Your task to perform on an android device: turn on location history Image 0: 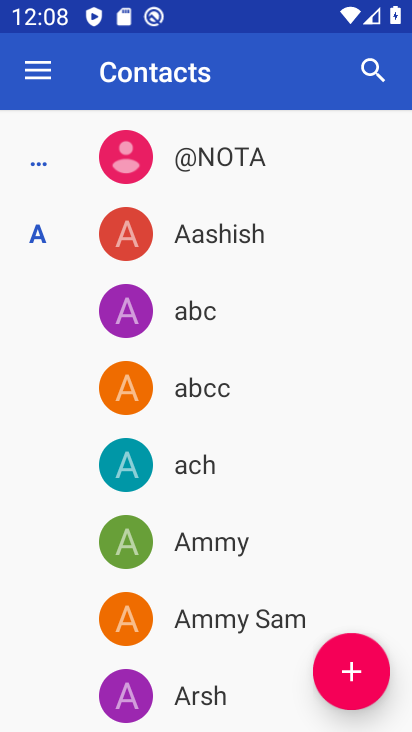
Step 0: press home button
Your task to perform on an android device: turn on location history Image 1: 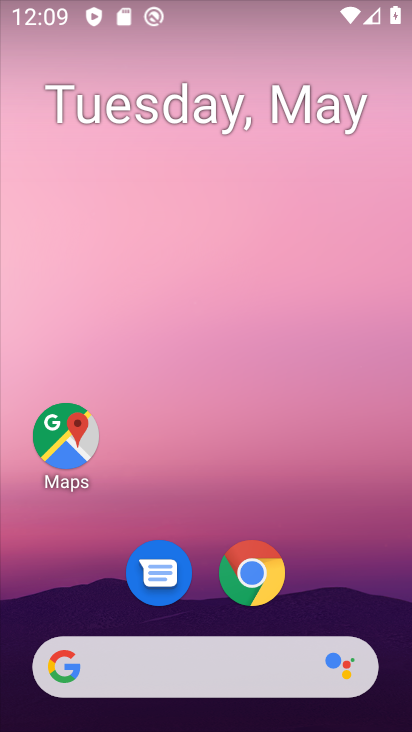
Step 1: drag from (335, 401) to (327, 58)
Your task to perform on an android device: turn on location history Image 2: 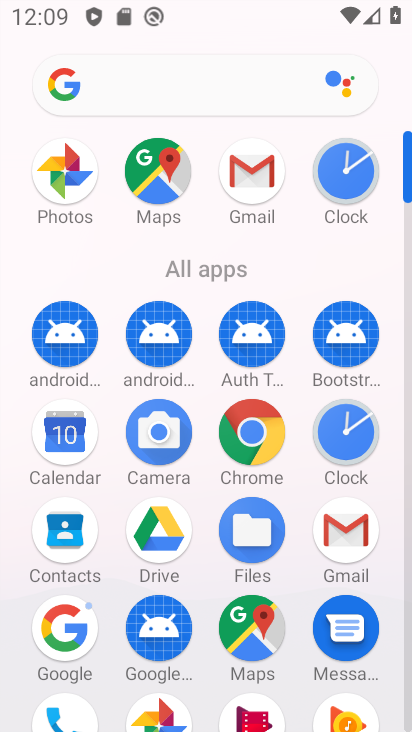
Step 2: drag from (383, 585) to (341, 120)
Your task to perform on an android device: turn on location history Image 3: 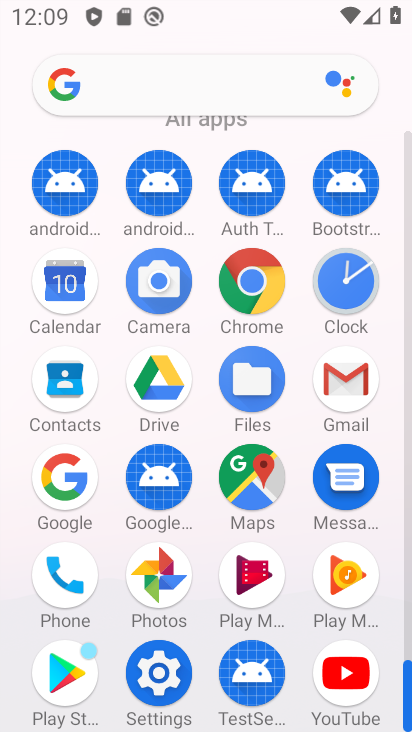
Step 3: click (161, 667)
Your task to perform on an android device: turn on location history Image 4: 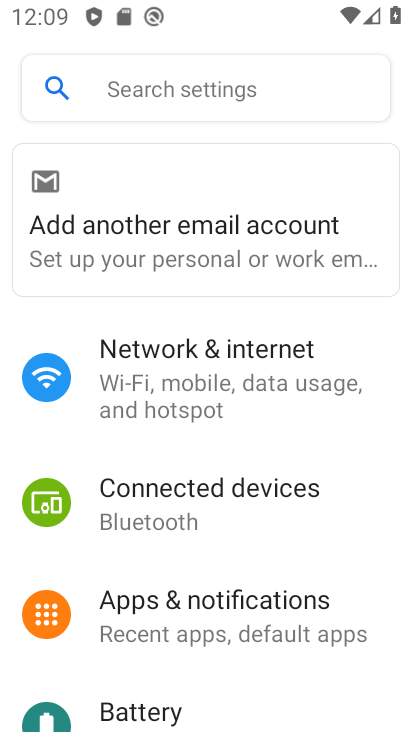
Step 4: drag from (255, 590) to (190, 146)
Your task to perform on an android device: turn on location history Image 5: 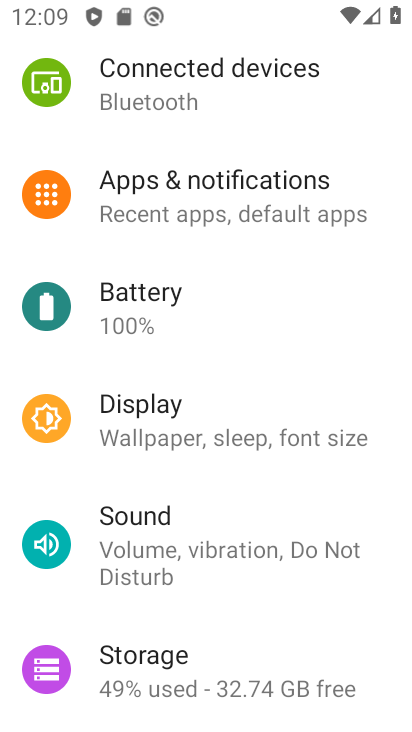
Step 5: drag from (237, 623) to (226, 131)
Your task to perform on an android device: turn on location history Image 6: 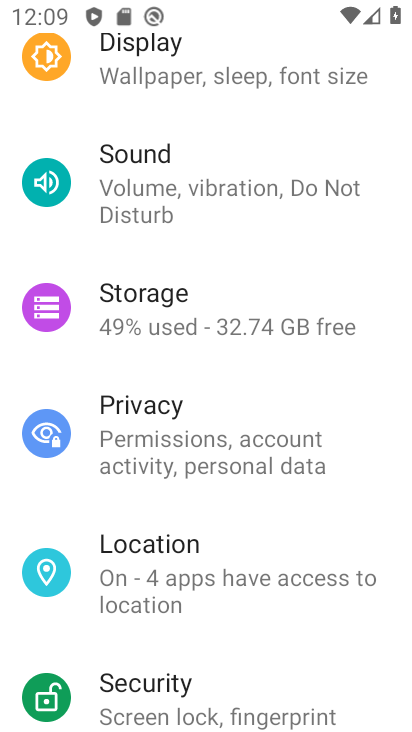
Step 6: click (122, 564)
Your task to perform on an android device: turn on location history Image 7: 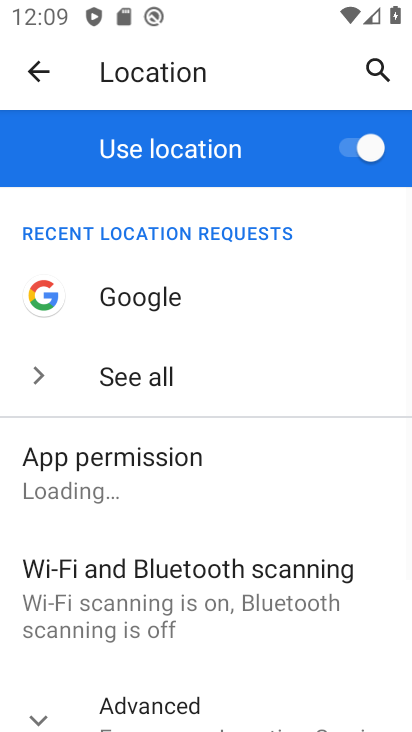
Step 7: drag from (163, 636) to (197, 290)
Your task to perform on an android device: turn on location history Image 8: 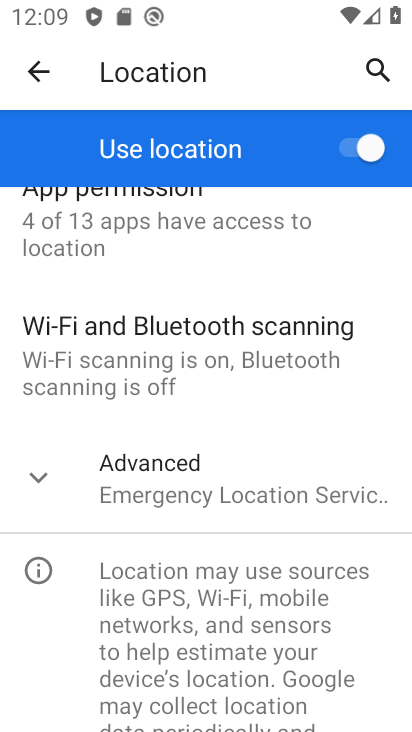
Step 8: drag from (280, 596) to (288, 193)
Your task to perform on an android device: turn on location history Image 9: 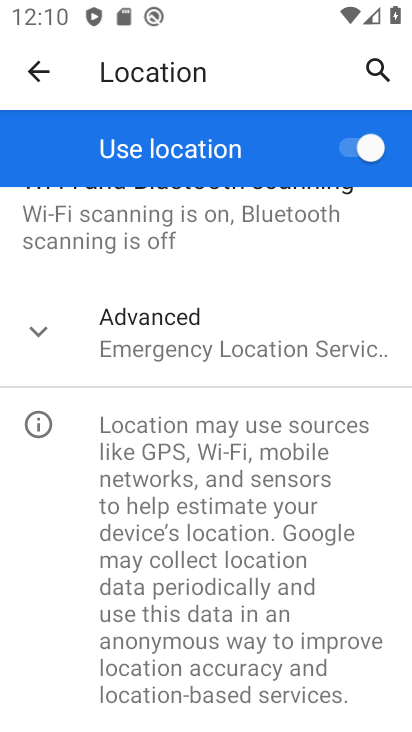
Step 9: click (150, 352)
Your task to perform on an android device: turn on location history Image 10: 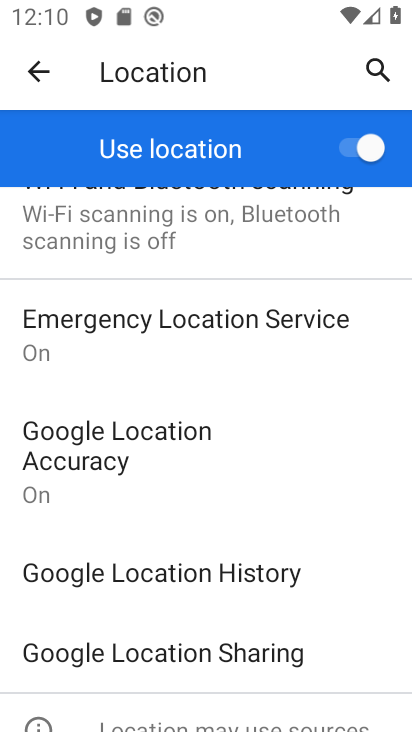
Step 10: drag from (191, 613) to (196, 218)
Your task to perform on an android device: turn on location history Image 11: 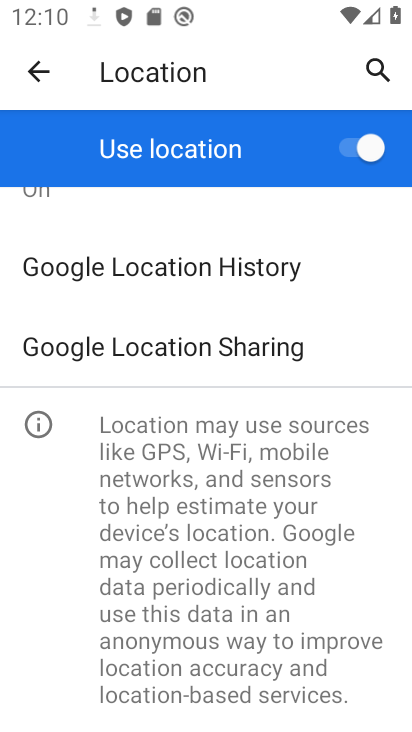
Step 11: click (130, 260)
Your task to perform on an android device: turn on location history Image 12: 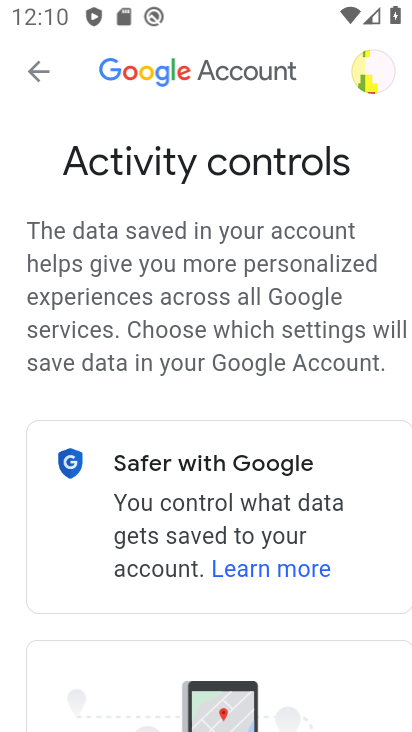
Step 12: task complete